Your task to perform on an android device: Open the map Image 0: 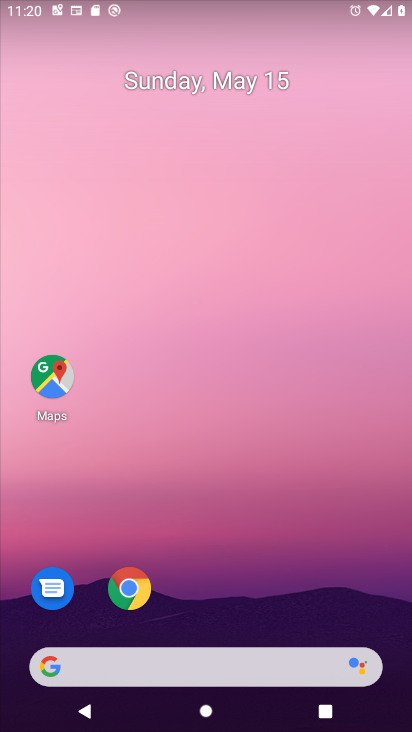
Step 0: click (50, 376)
Your task to perform on an android device: Open the map Image 1: 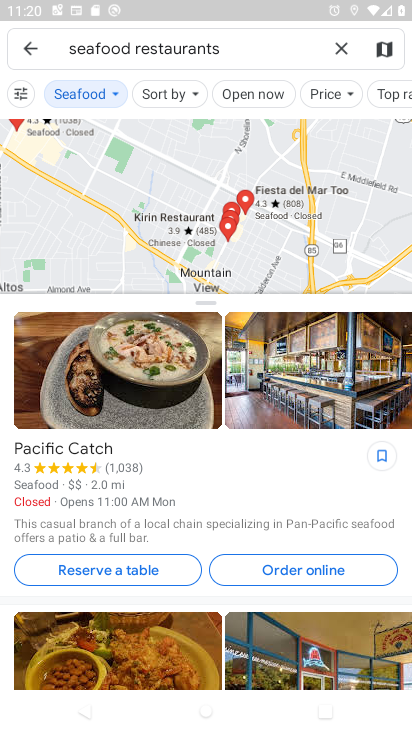
Step 1: task complete